Your task to perform on an android device: Do I have any events this weekend? Image 0: 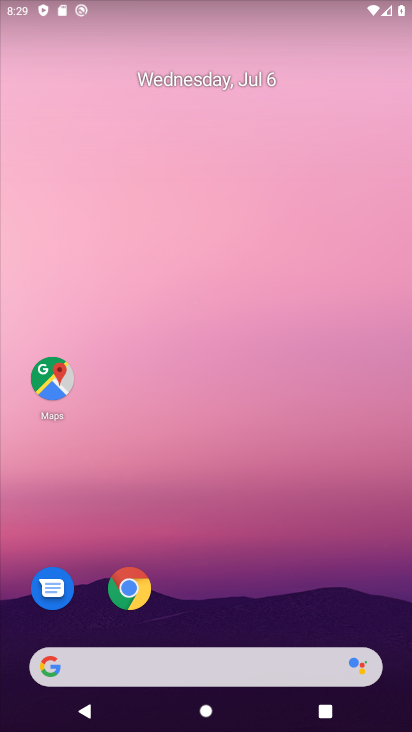
Step 0: click (269, 239)
Your task to perform on an android device: Do I have any events this weekend? Image 1: 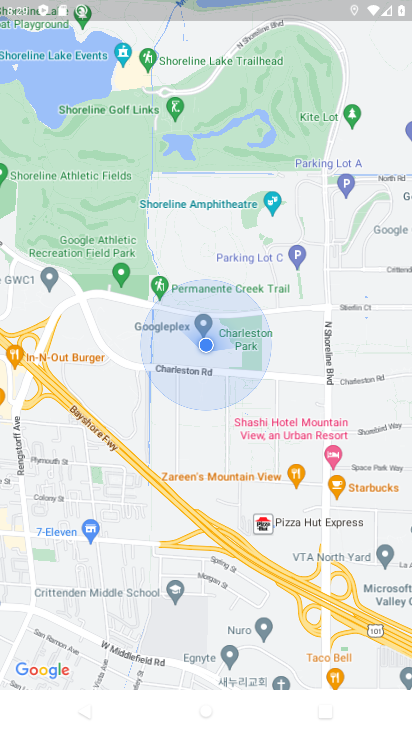
Step 1: drag from (232, 195) to (234, 648)
Your task to perform on an android device: Do I have any events this weekend? Image 2: 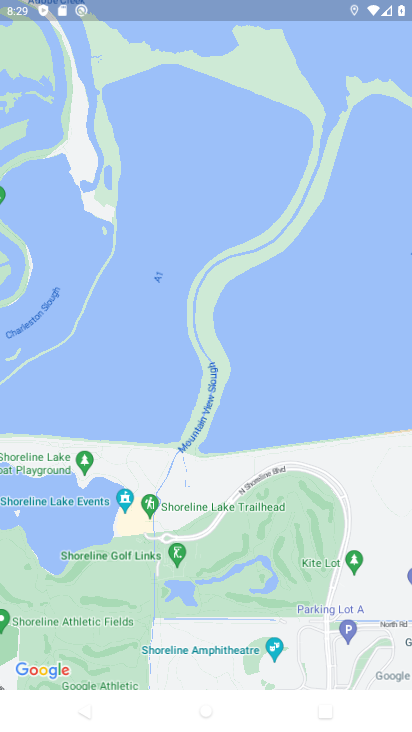
Step 2: drag from (184, 150) to (269, 730)
Your task to perform on an android device: Do I have any events this weekend? Image 3: 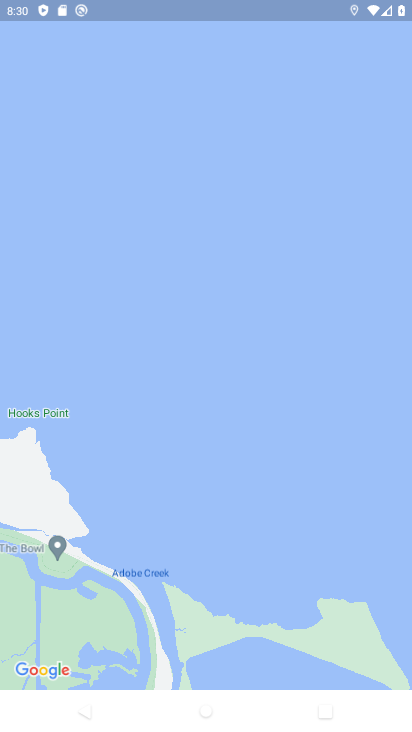
Step 3: press home button
Your task to perform on an android device: Do I have any events this weekend? Image 4: 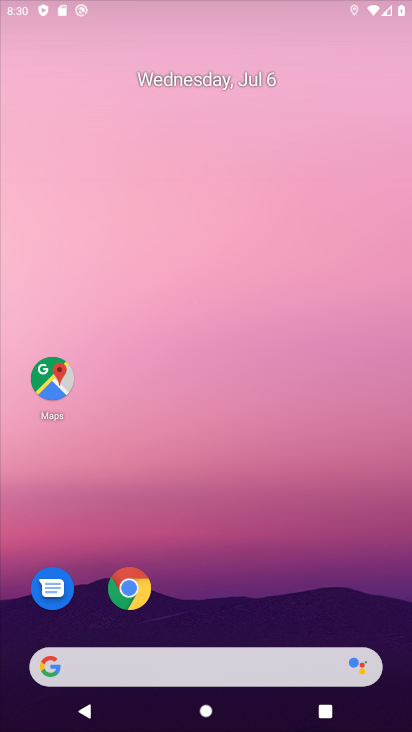
Step 4: drag from (201, 600) to (210, 144)
Your task to perform on an android device: Do I have any events this weekend? Image 5: 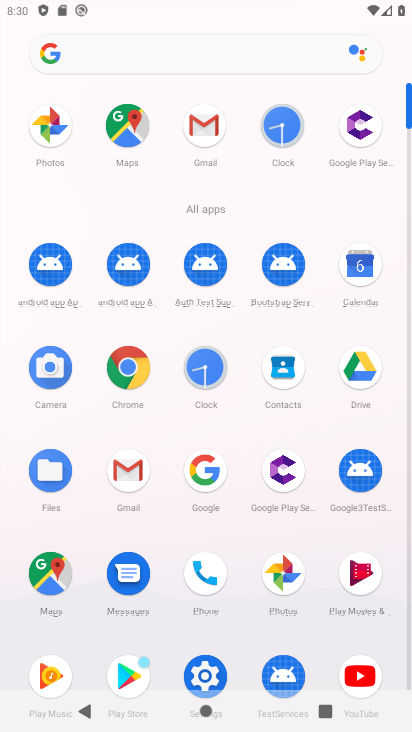
Step 5: click (354, 256)
Your task to perform on an android device: Do I have any events this weekend? Image 6: 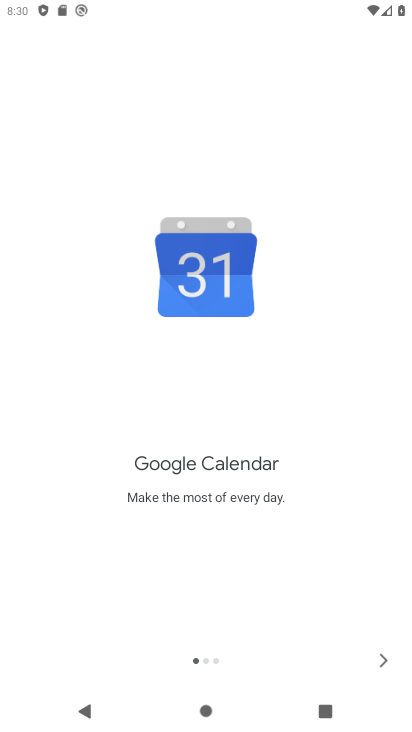
Step 6: click (373, 652)
Your task to perform on an android device: Do I have any events this weekend? Image 7: 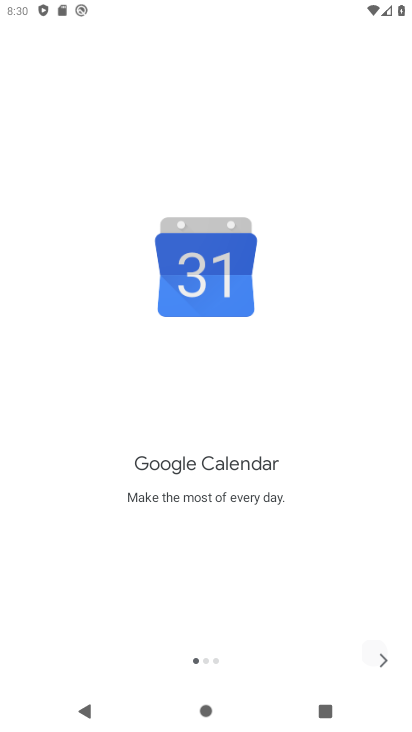
Step 7: click (395, 653)
Your task to perform on an android device: Do I have any events this weekend? Image 8: 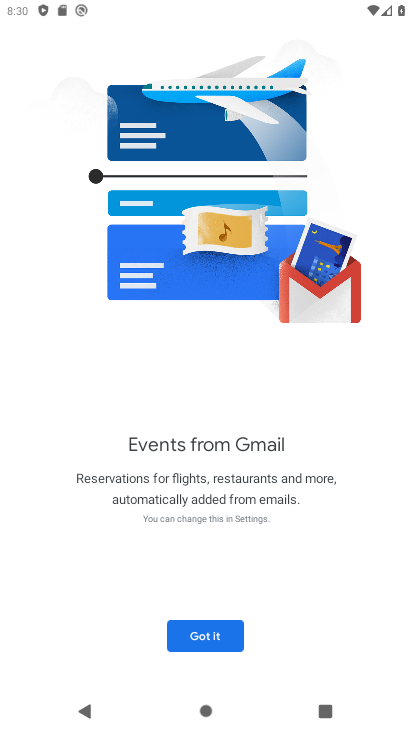
Step 8: click (385, 651)
Your task to perform on an android device: Do I have any events this weekend? Image 9: 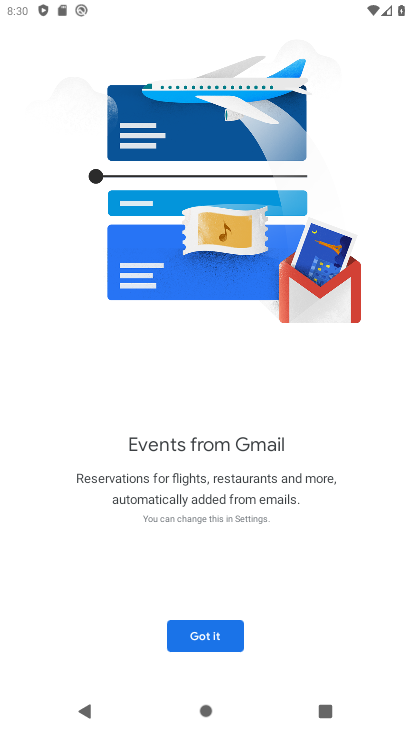
Step 9: click (205, 638)
Your task to perform on an android device: Do I have any events this weekend? Image 10: 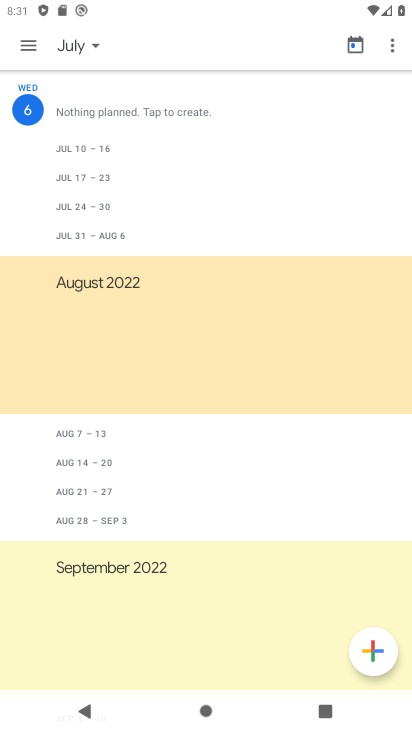
Step 10: click (88, 43)
Your task to perform on an android device: Do I have any events this weekend? Image 11: 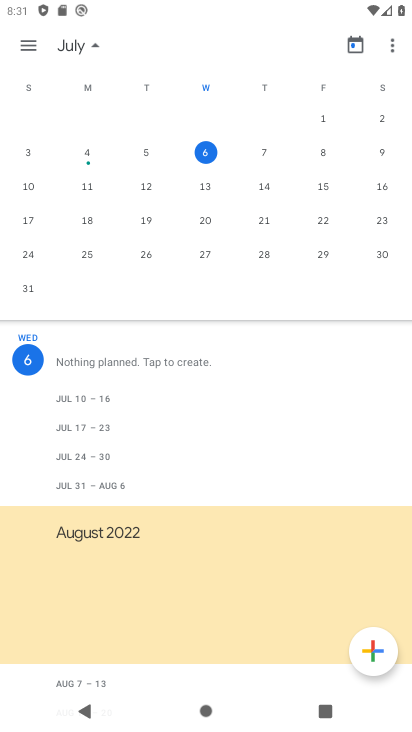
Step 11: click (382, 155)
Your task to perform on an android device: Do I have any events this weekend? Image 12: 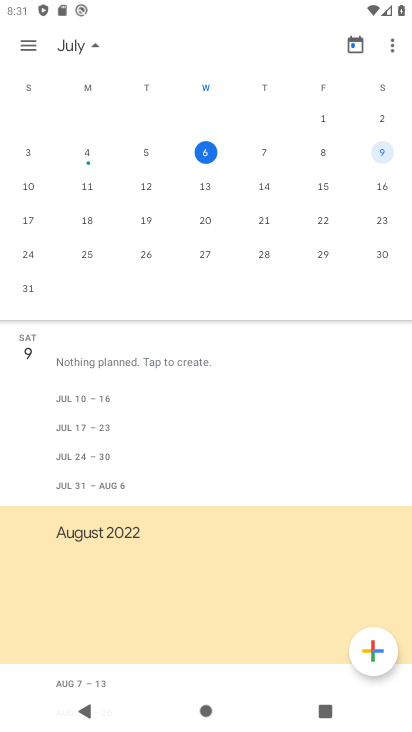
Step 12: click (382, 151)
Your task to perform on an android device: Do I have any events this weekend? Image 13: 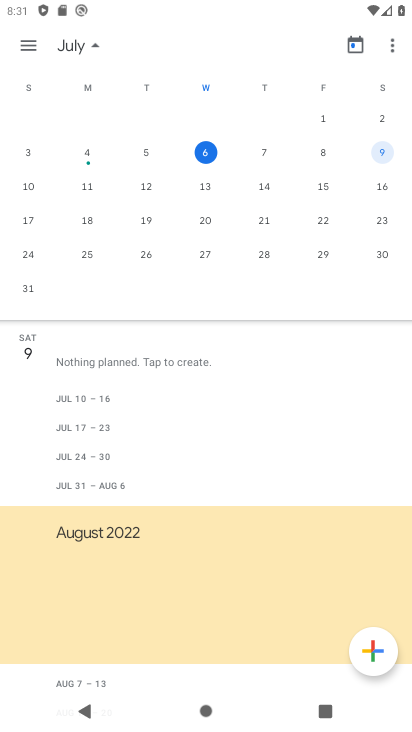
Step 13: drag from (259, 470) to (265, 259)
Your task to perform on an android device: Do I have any events this weekend? Image 14: 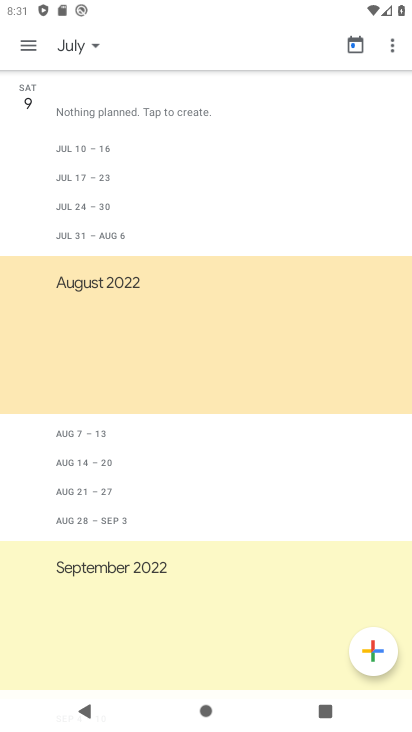
Step 14: drag from (278, 165) to (295, 420)
Your task to perform on an android device: Do I have any events this weekend? Image 15: 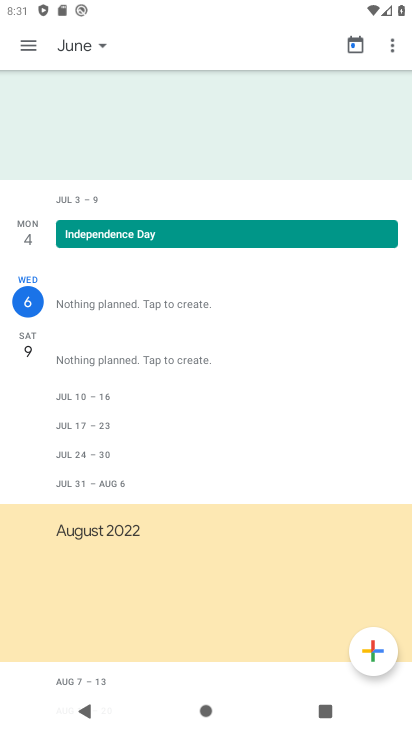
Step 15: click (73, 42)
Your task to perform on an android device: Do I have any events this weekend? Image 16: 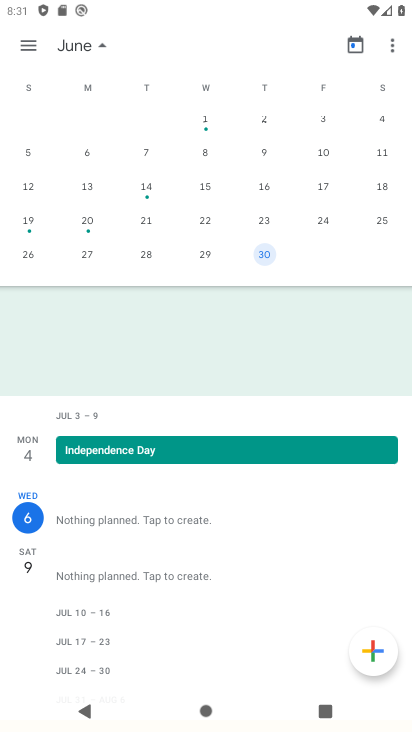
Step 16: drag from (365, 223) to (4, 168)
Your task to perform on an android device: Do I have any events this weekend? Image 17: 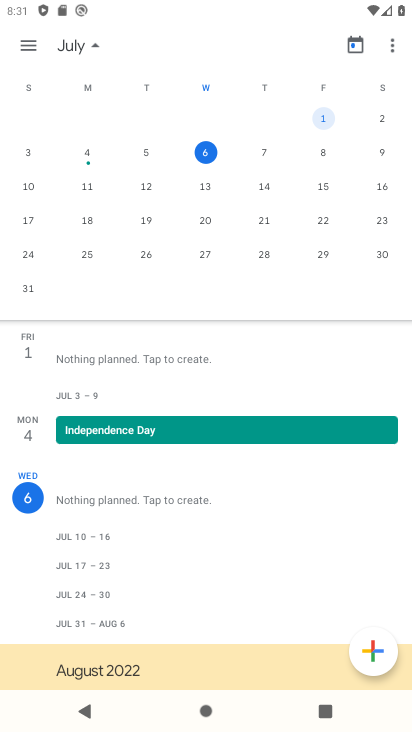
Step 17: click (384, 154)
Your task to perform on an android device: Do I have any events this weekend? Image 18: 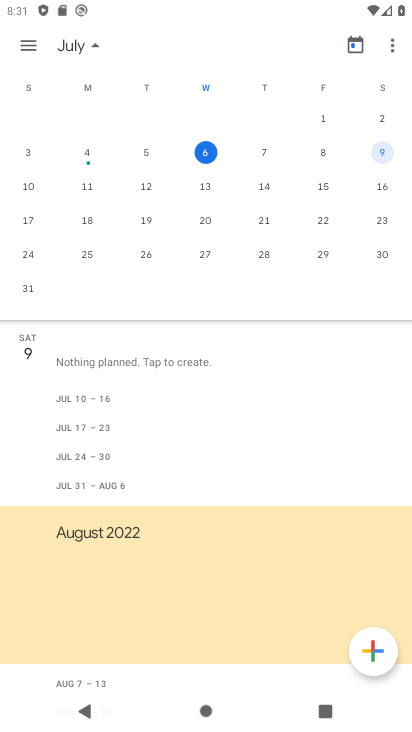
Step 18: task complete